Your task to perform on an android device: turn off smart reply in the gmail app Image 0: 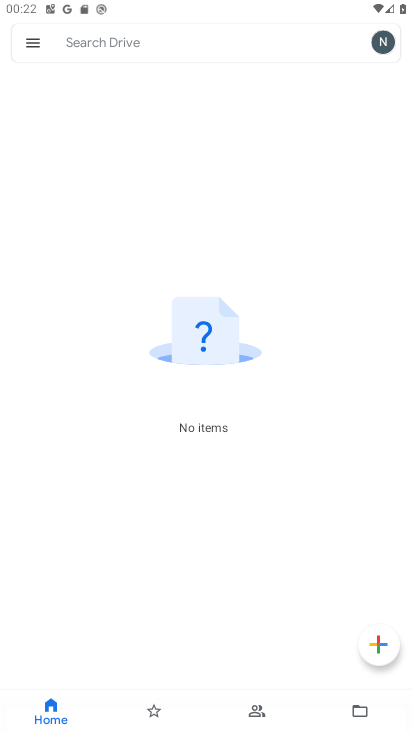
Step 0: press home button
Your task to perform on an android device: turn off smart reply in the gmail app Image 1: 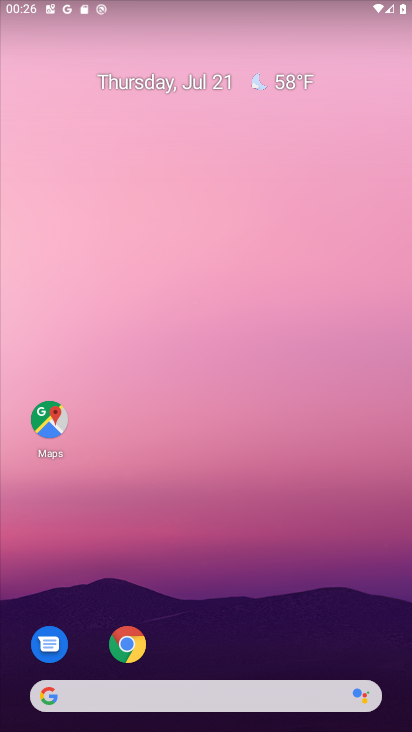
Step 1: drag from (329, 580) to (365, 19)
Your task to perform on an android device: turn off smart reply in the gmail app Image 2: 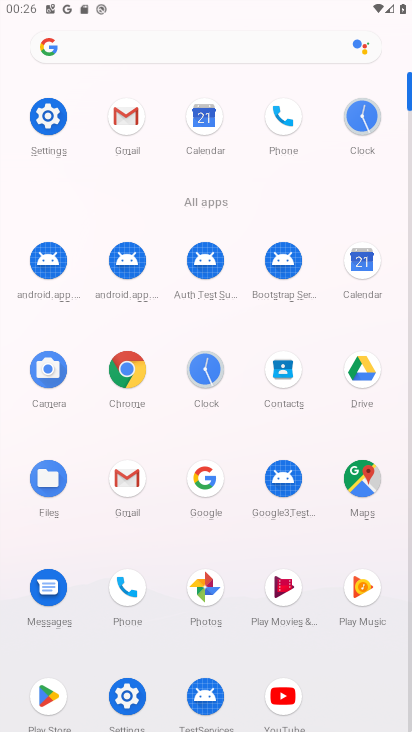
Step 2: click (138, 124)
Your task to perform on an android device: turn off smart reply in the gmail app Image 3: 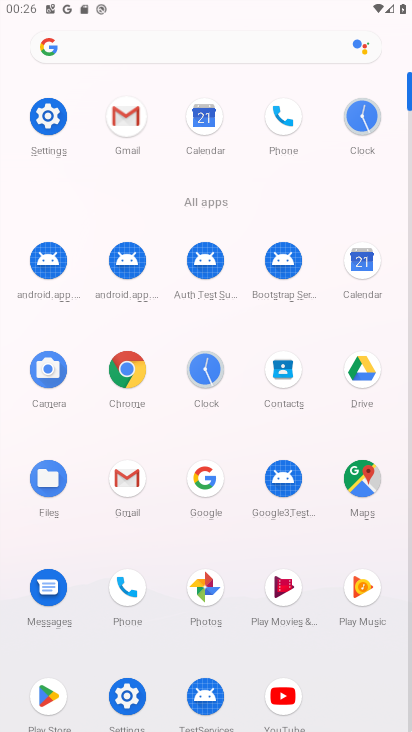
Step 3: click (138, 124)
Your task to perform on an android device: turn off smart reply in the gmail app Image 4: 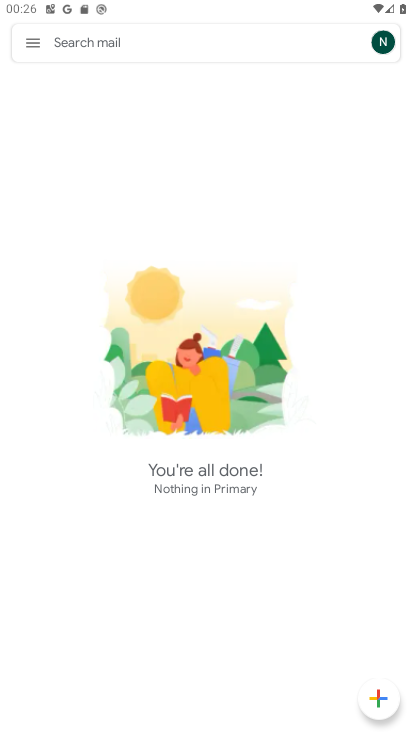
Step 4: click (37, 46)
Your task to perform on an android device: turn off smart reply in the gmail app Image 5: 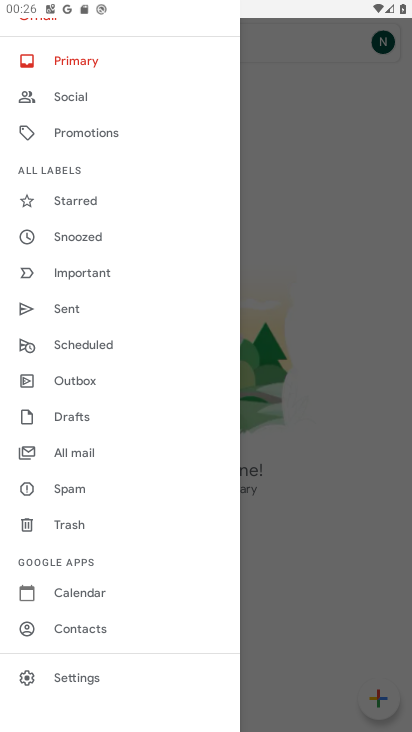
Step 5: click (86, 678)
Your task to perform on an android device: turn off smart reply in the gmail app Image 6: 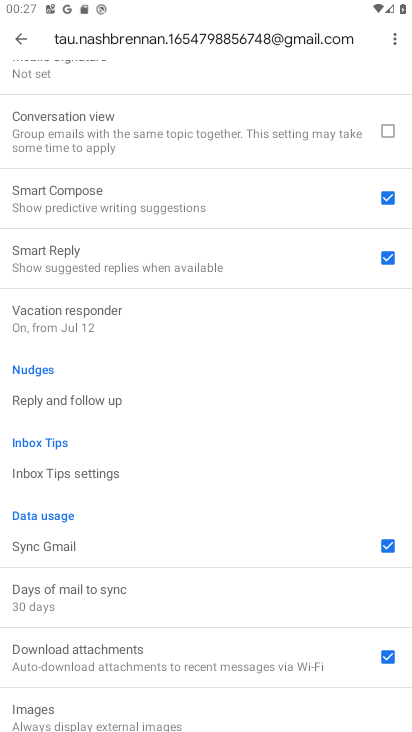
Step 6: click (378, 256)
Your task to perform on an android device: turn off smart reply in the gmail app Image 7: 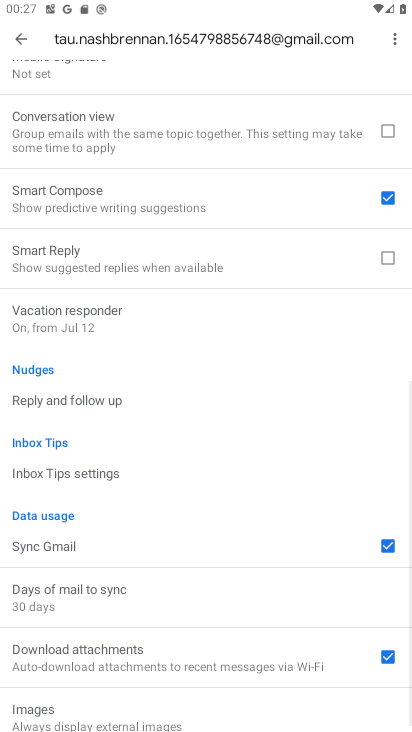
Step 7: task complete